Your task to perform on an android device: turn off javascript in the chrome app Image 0: 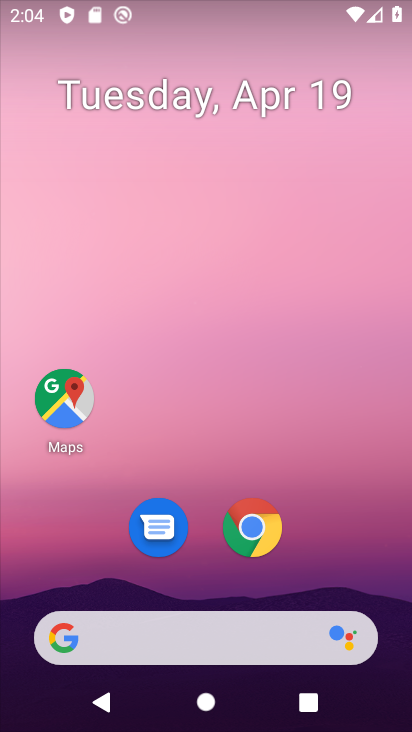
Step 0: click (240, 530)
Your task to perform on an android device: turn off javascript in the chrome app Image 1: 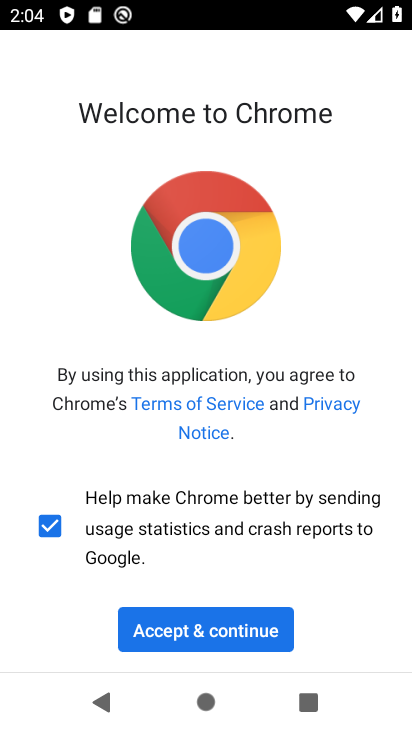
Step 1: click (224, 633)
Your task to perform on an android device: turn off javascript in the chrome app Image 2: 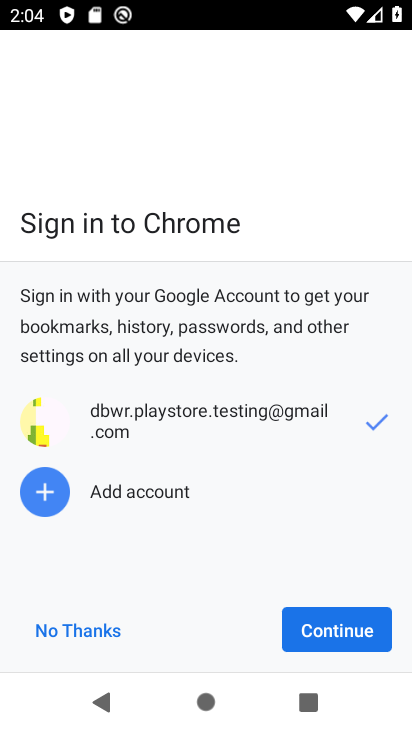
Step 2: click (309, 632)
Your task to perform on an android device: turn off javascript in the chrome app Image 3: 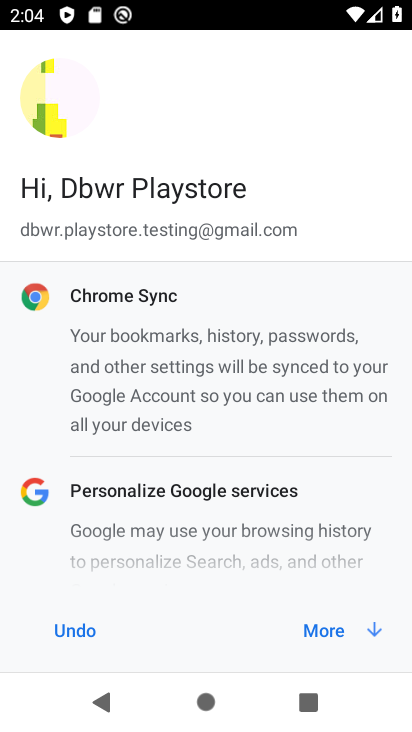
Step 3: click (308, 631)
Your task to perform on an android device: turn off javascript in the chrome app Image 4: 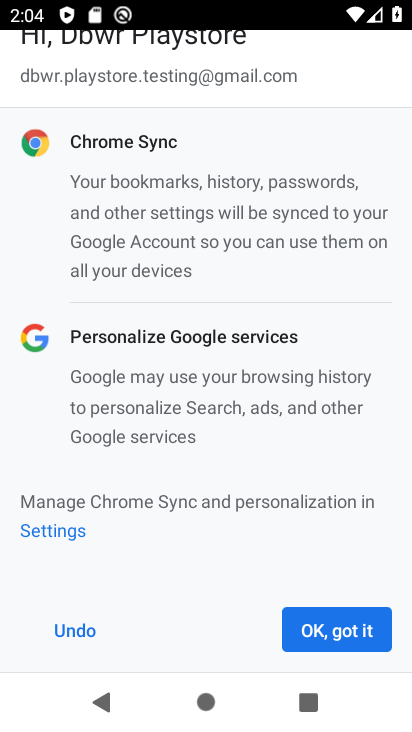
Step 4: click (306, 631)
Your task to perform on an android device: turn off javascript in the chrome app Image 5: 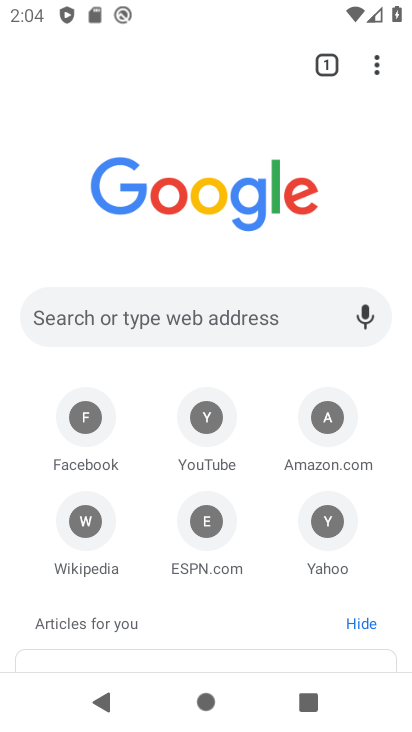
Step 5: click (379, 60)
Your task to perform on an android device: turn off javascript in the chrome app Image 6: 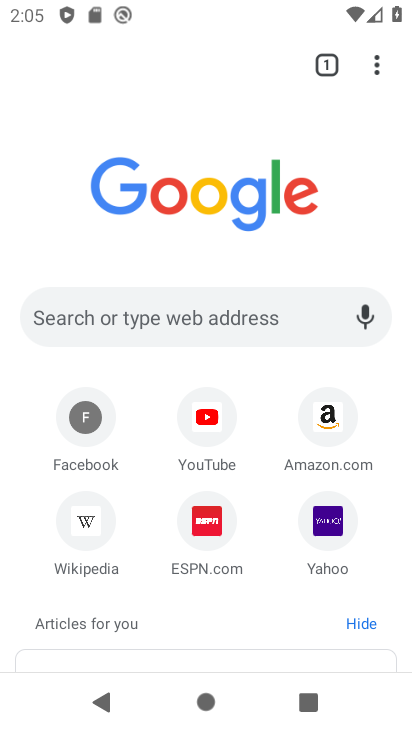
Step 6: click (379, 60)
Your task to perform on an android device: turn off javascript in the chrome app Image 7: 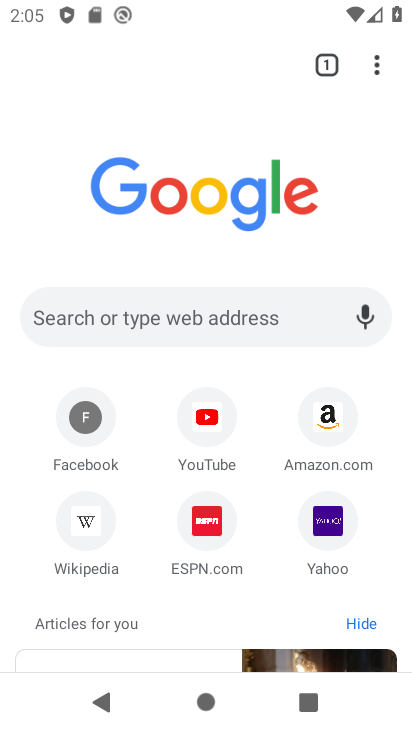
Step 7: click (371, 68)
Your task to perform on an android device: turn off javascript in the chrome app Image 8: 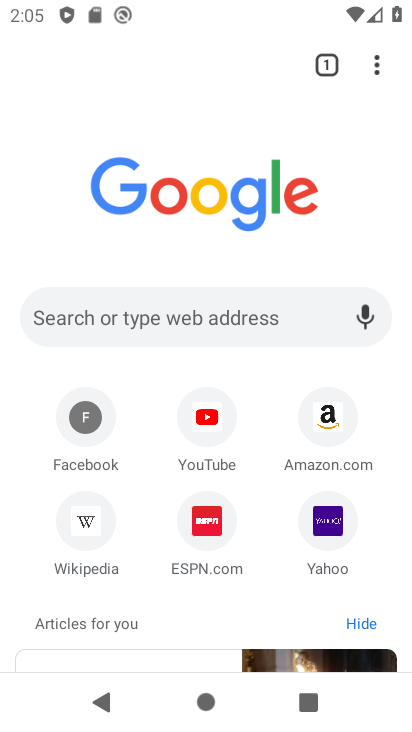
Step 8: click (374, 68)
Your task to perform on an android device: turn off javascript in the chrome app Image 9: 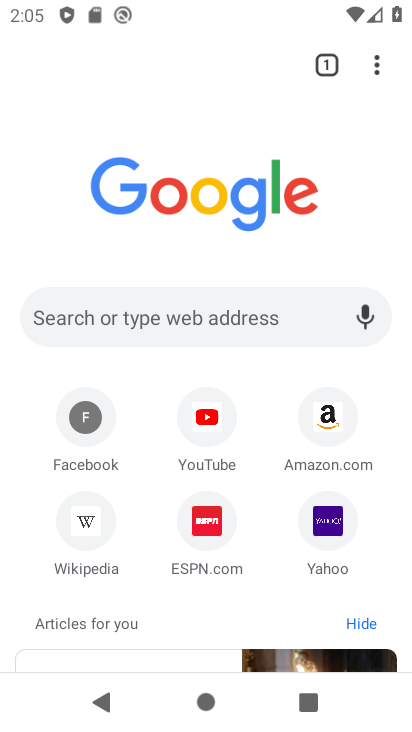
Step 9: click (377, 65)
Your task to perform on an android device: turn off javascript in the chrome app Image 10: 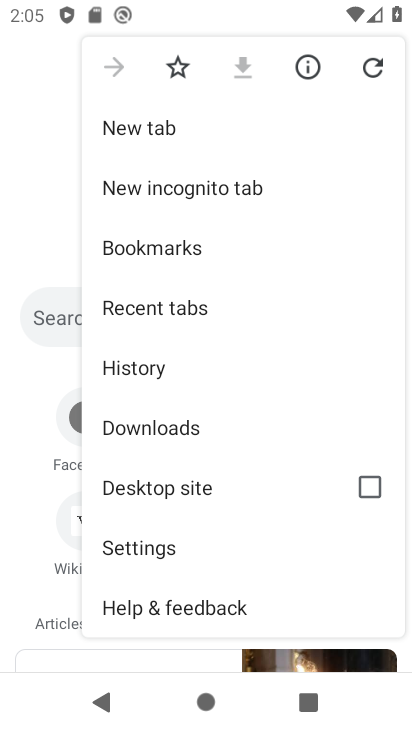
Step 10: click (158, 556)
Your task to perform on an android device: turn off javascript in the chrome app Image 11: 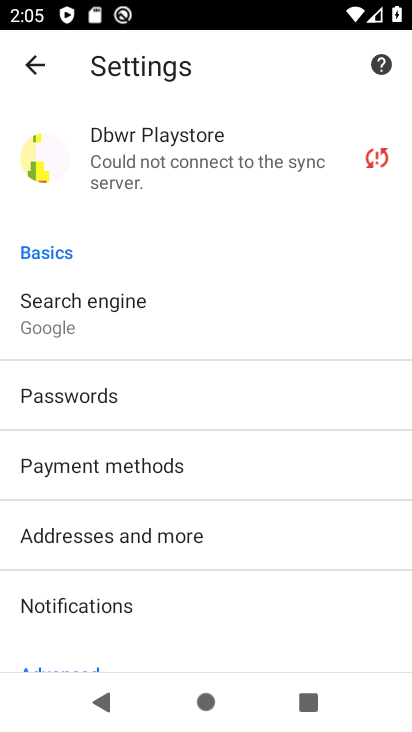
Step 11: drag from (131, 660) to (229, 236)
Your task to perform on an android device: turn off javascript in the chrome app Image 12: 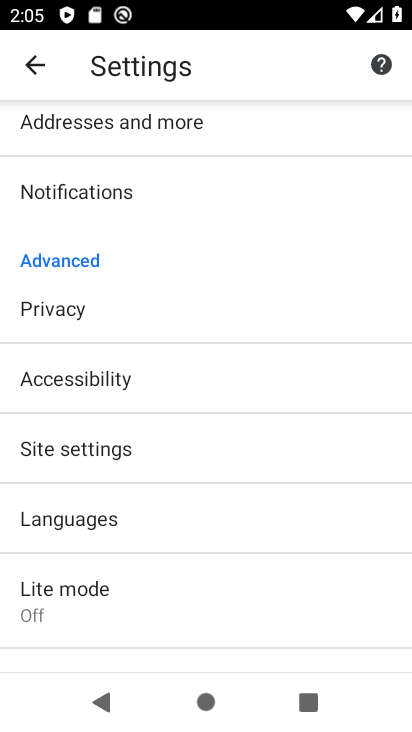
Step 12: click (75, 451)
Your task to perform on an android device: turn off javascript in the chrome app Image 13: 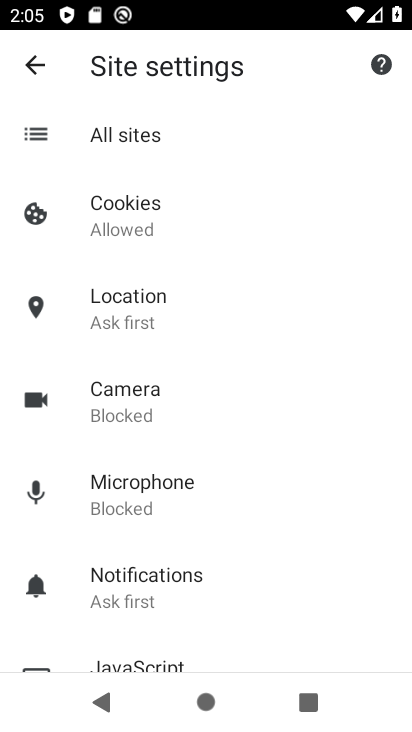
Step 13: drag from (159, 562) to (176, 301)
Your task to perform on an android device: turn off javascript in the chrome app Image 14: 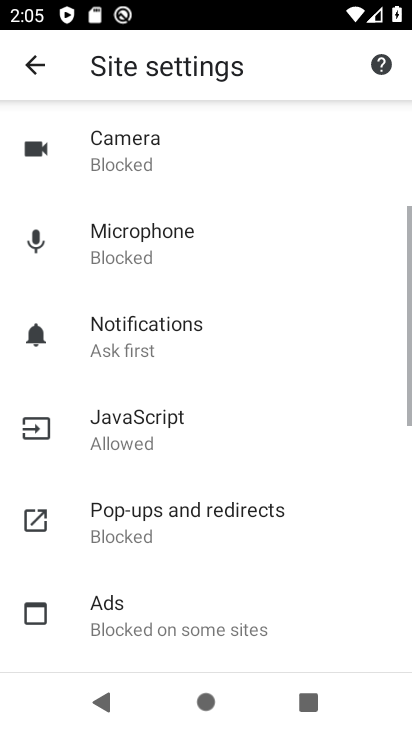
Step 14: click (111, 439)
Your task to perform on an android device: turn off javascript in the chrome app Image 15: 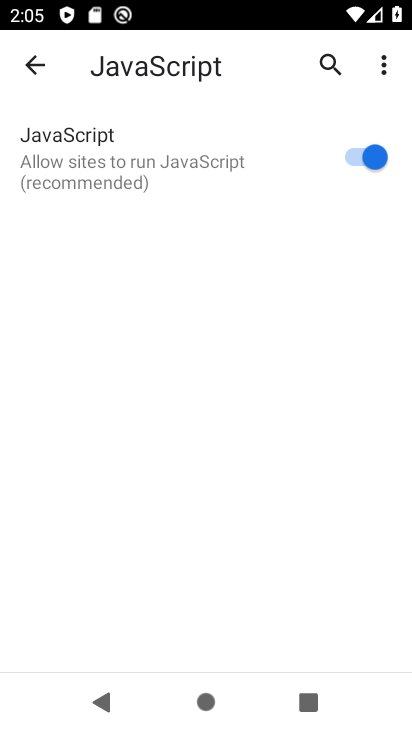
Step 15: click (347, 155)
Your task to perform on an android device: turn off javascript in the chrome app Image 16: 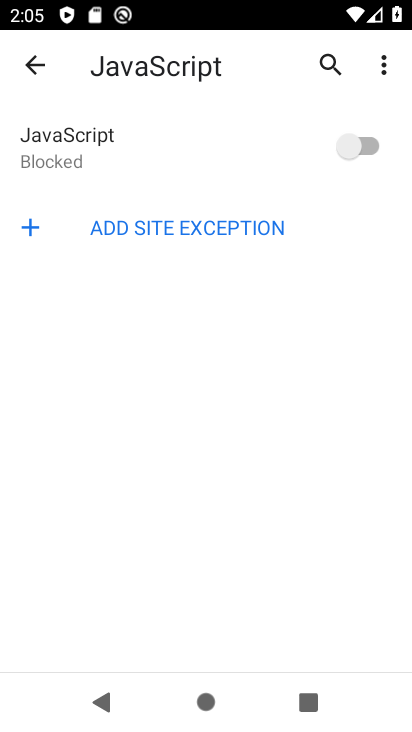
Step 16: task complete